Your task to perform on an android device: What's the weather going to be this weekend? Image 0: 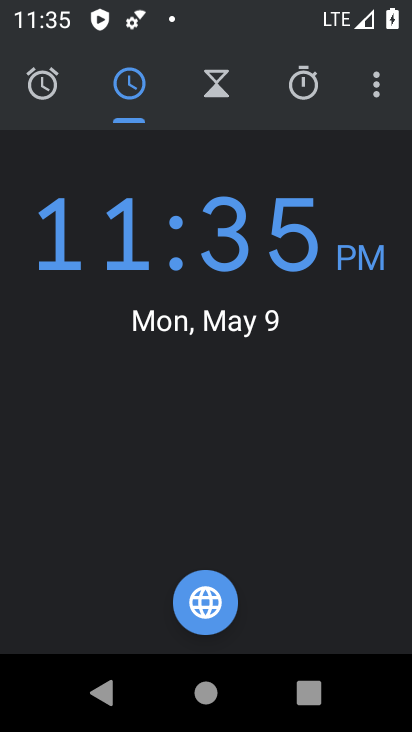
Step 0: press back button
Your task to perform on an android device: What's the weather going to be this weekend? Image 1: 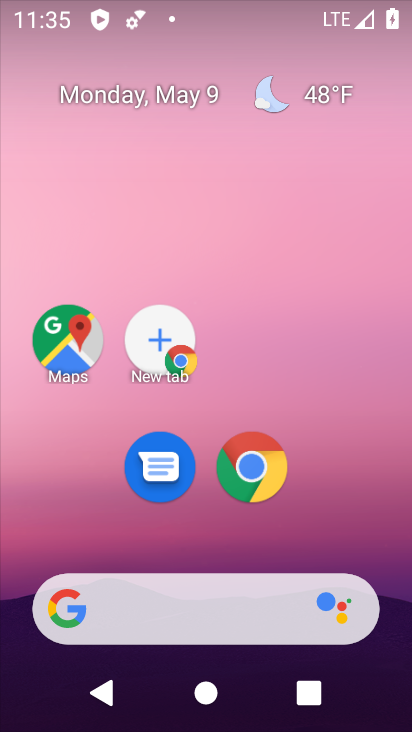
Step 1: click (267, 99)
Your task to perform on an android device: What's the weather going to be this weekend? Image 2: 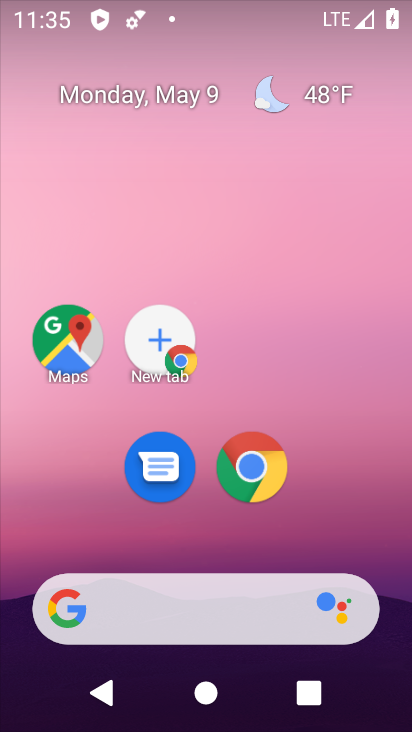
Step 2: click (268, 98)
Your task to perform on an android device: What's the weather going to be this weekend? Image 3: 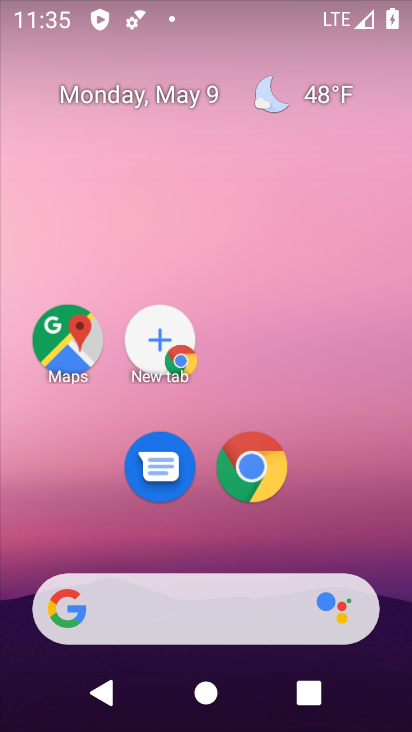
Step 3: click (269, 102)
Your task to perform on an android device: What's the weather going to be this weekend? Image 4: 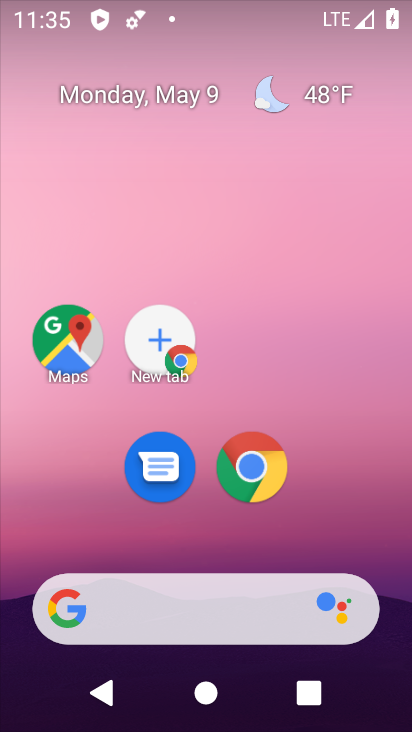
Step 4: drag from (276, 110) to (306, 92)
Your task to perform on an android device: What's the weather going to be this weekend? Image 5: 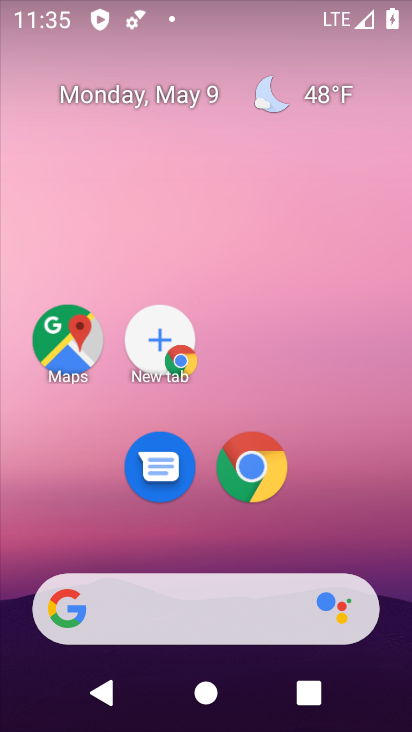
Step 5: click (309, 98)
Your task to perform on an android device: What's the weather going to be this weekend? Image 6: 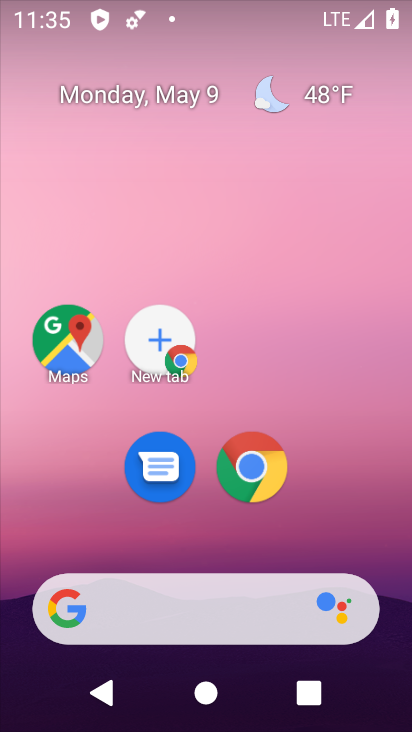
Step 6: click (313, 96)
Your task to perform on an android device: What's the weather going to be this weekend? Image 7: 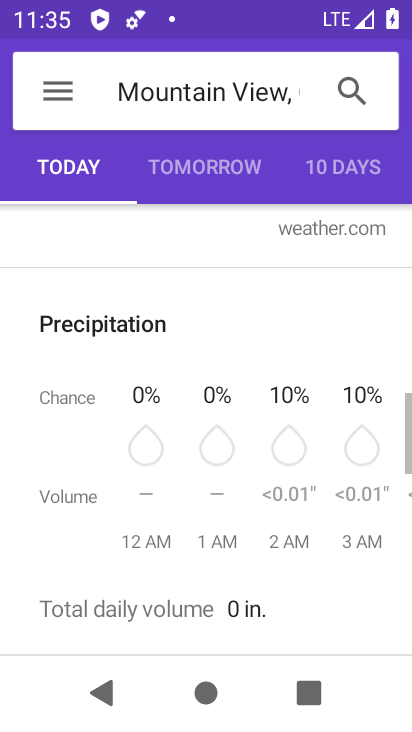
Step 7: click (311, 93)
Your task to perform on an android device: What's the weather going to be this weekend? Image 8: 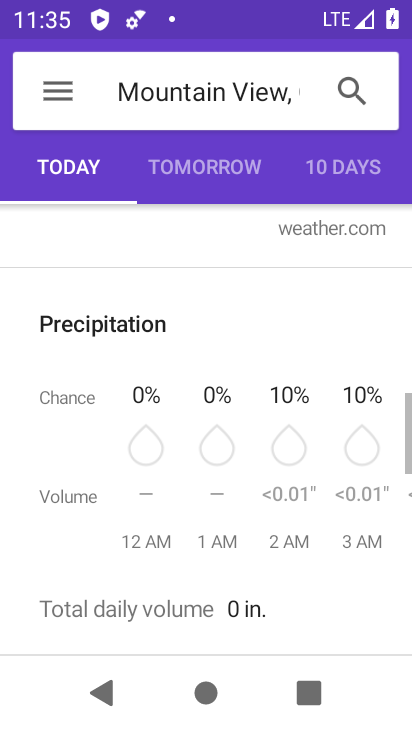
Step 8: click (310, 89)
Your task to perform on an android device: What's the weather going to be this weekend? Image 9: 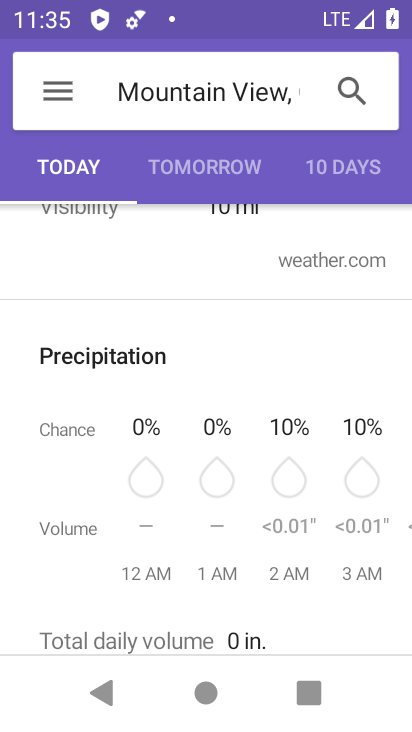
Step 9: drag from (213, 428) to (175, 287)
Your task to perform on an android device: What's the weather going to be this weekend? Image 10: 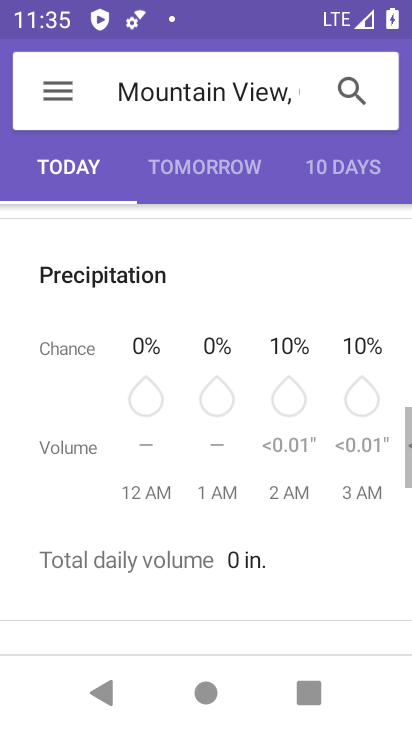
Step 10: drag from (269, 492) to (237, 240)
Your task to perform on an android device: What's the weather going to be this weekend? Image 11: 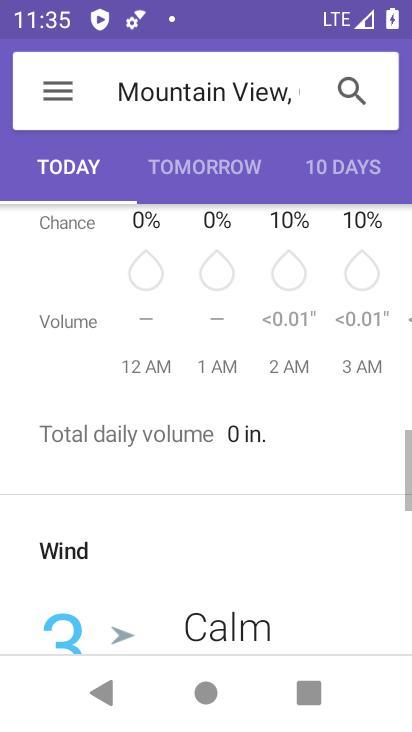
Step 11: drag from (224, 448) to (198, 160)
Your task to perform on an android device: What's the weather going to be this weekend? Image 12: 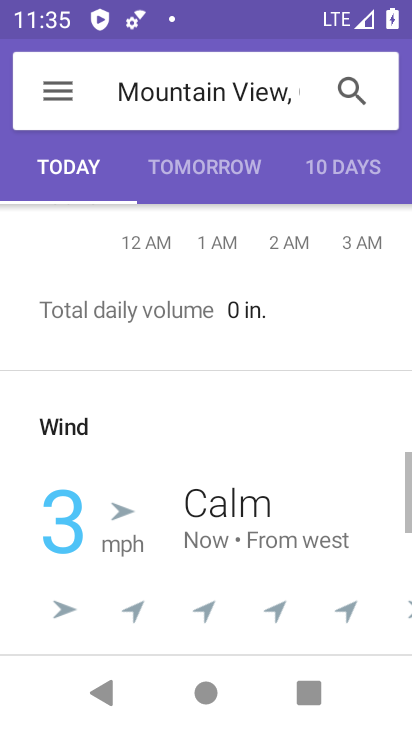
Step 12: drag from (215, 393) to (194, 524)
Your task to perform on an android device: What's the weather going to be this weekend? Image 13: 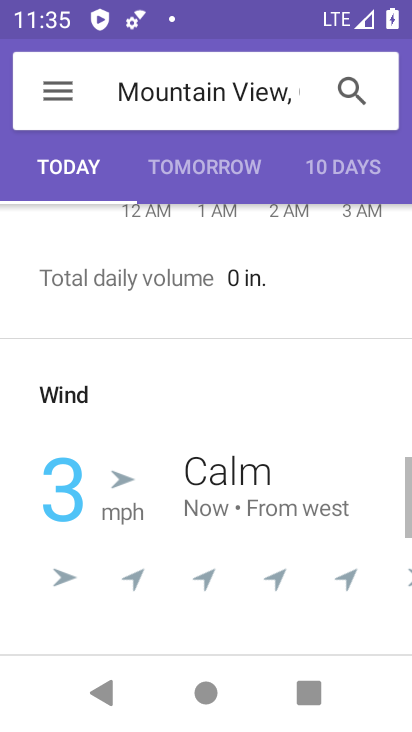
Step 13: drag from (262, 358) to (230, 557)
Your task to perform on an android device: What's the weather going to be this weekend? Image 14: 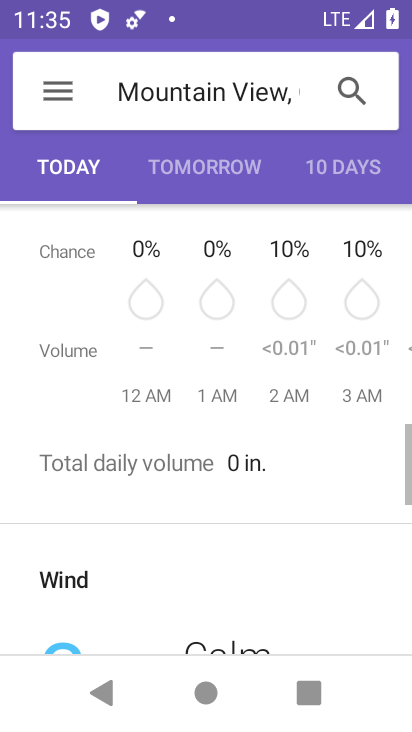
Step 14: drag from (226, 353) to (228, 719)
Your task to perform on an android device: What's the weather going to be this weekend? Image 15: 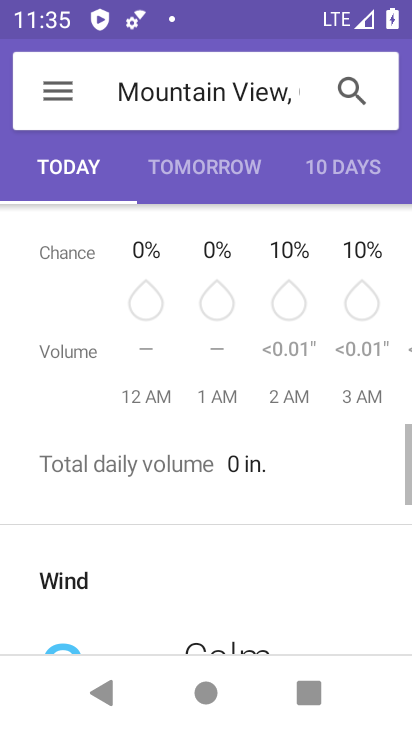
Step 15: drag from (239, 551) to (247, 670)
Your task to perform on an android device: What's the weather going to be this weekend? Image 16: 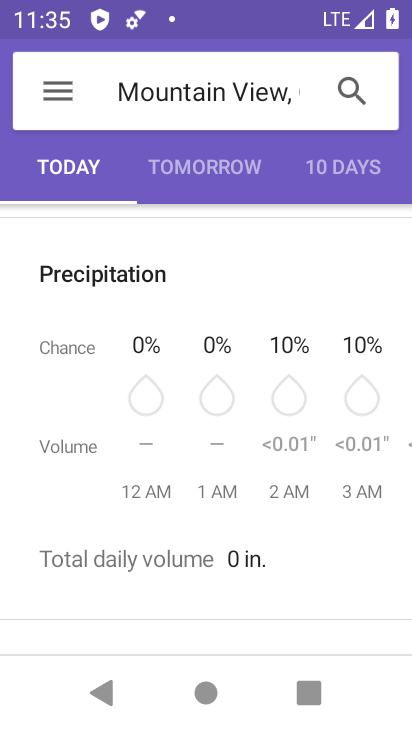
Step 16: click (318, 165)
Your task to perform on an android device: What's the weather going to be this weekend? Image 17: 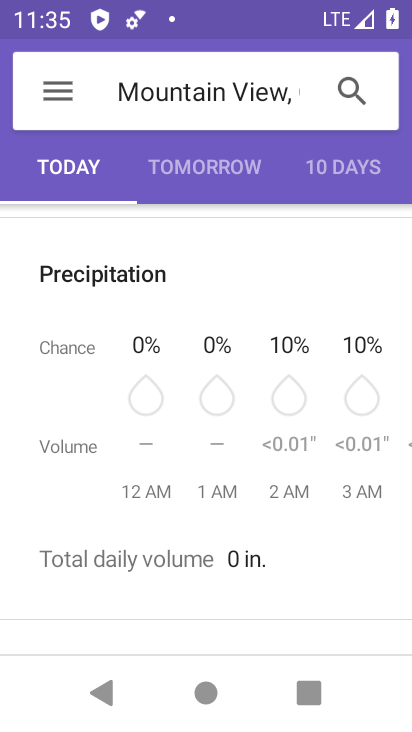
Step 17: click (315, 170)
Your task to perform on an android device: What's the weather going to be this weekend? Image 18: 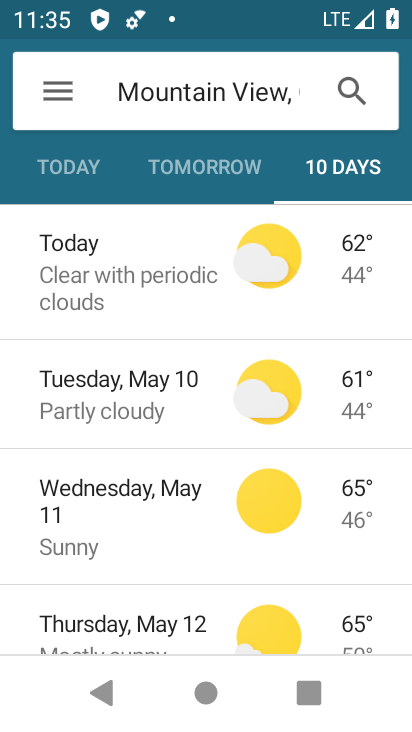
Step 18: click (316, 170)
Your task to perform on an android device: What's the weather going to be this weekend? Image 19: 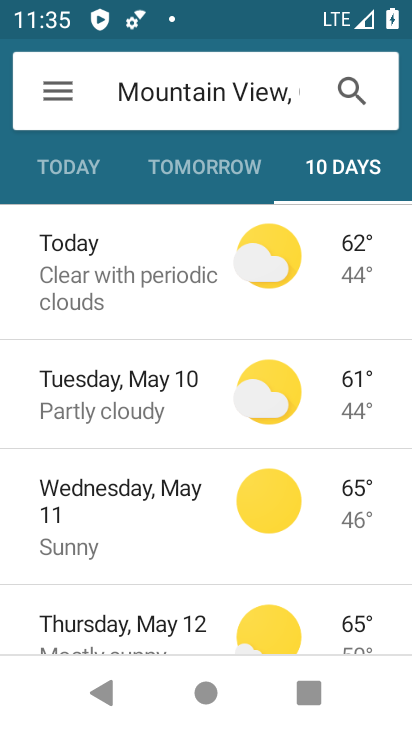
Step 19: task complete